Your task to perform on an android device: When is my next meeting? Image 0: 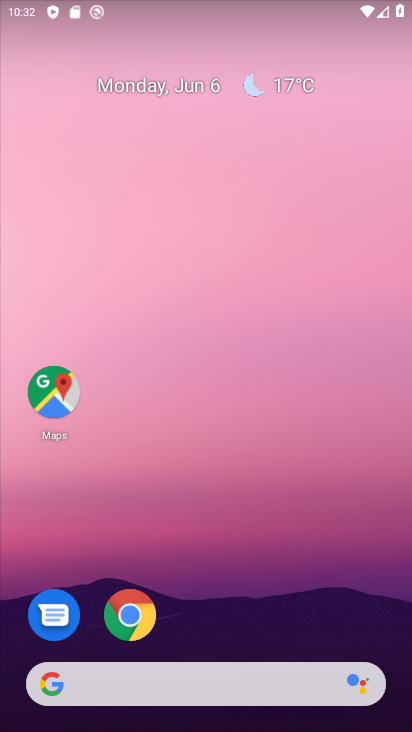
Step 0: drag from (236, 667) to (105, 257)
Your task to perform on an android device: When is my next meeting? Image 1: 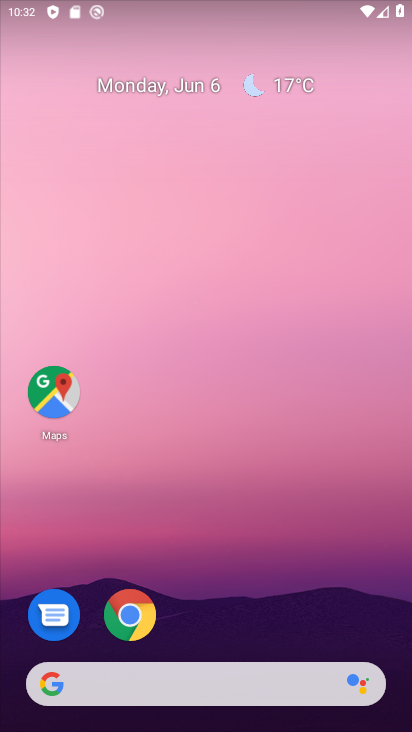
Step 1: drag from (170, 496) to (58, 103)
Your task to perform on an android device: When is my next meeting? Image 2: 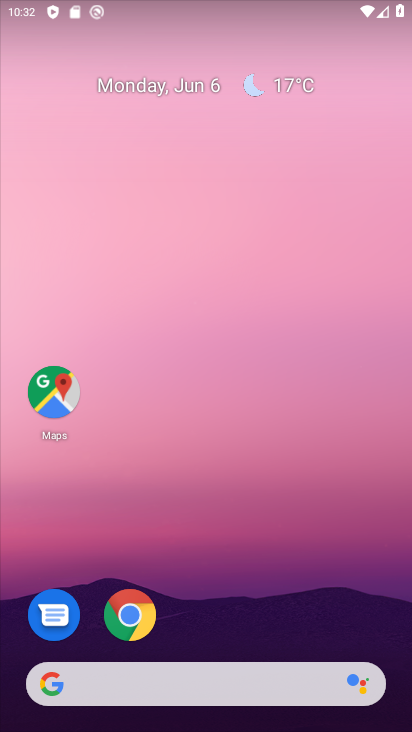
Step 2: drag from (189, 427) to (141, 21)
Your task to perform on an android device: When is my next meeting? Image 3: 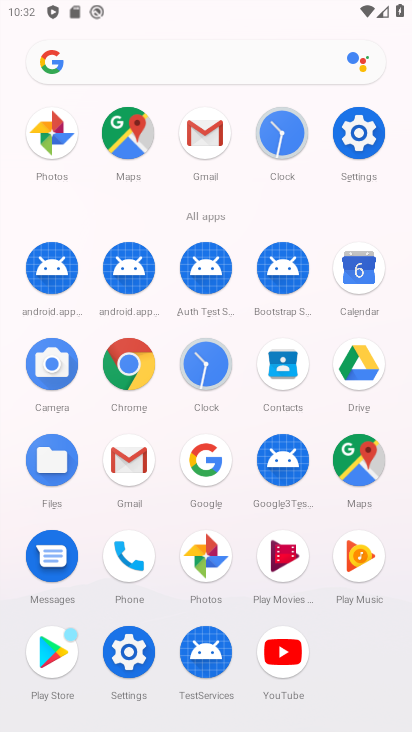
Step 3: drag from (228, 590) to (204, 56)
Your task to perform on an android device: When is my next meeting? Image 4: 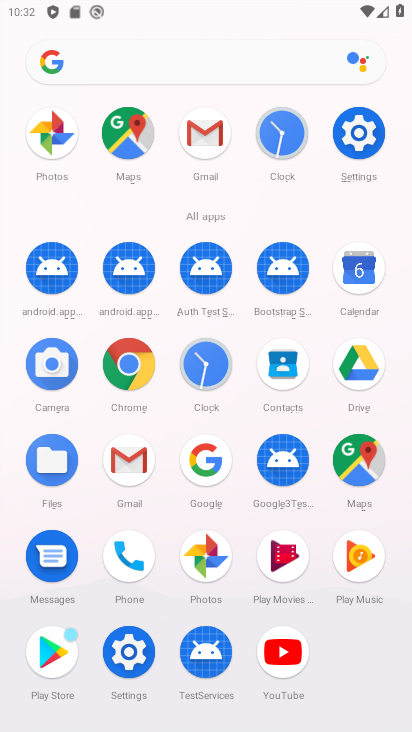
Step 4: click (352, 276)
Your task to perform on an android device: When is my next meeting? Image 5: 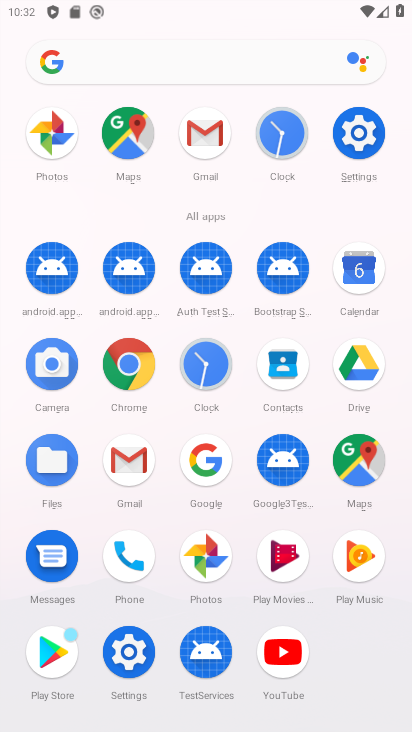
Step 5: click (352, 276)
Your task to perform on an android device: When is my next meeting? Image 6: 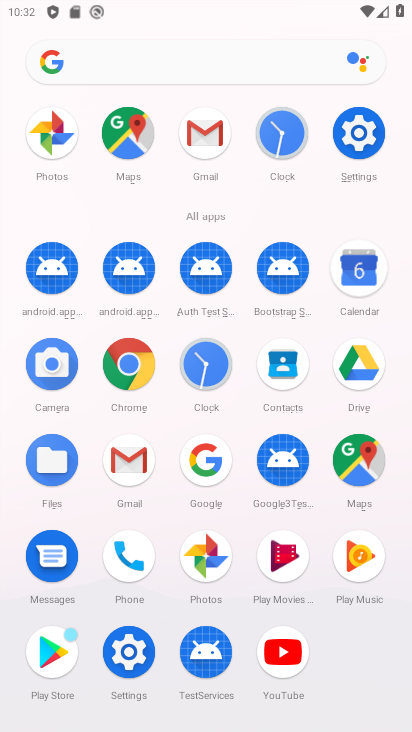
Step 6: click (355, 280)
Your task to perform on an android device: When is my next meeting? Image 7: 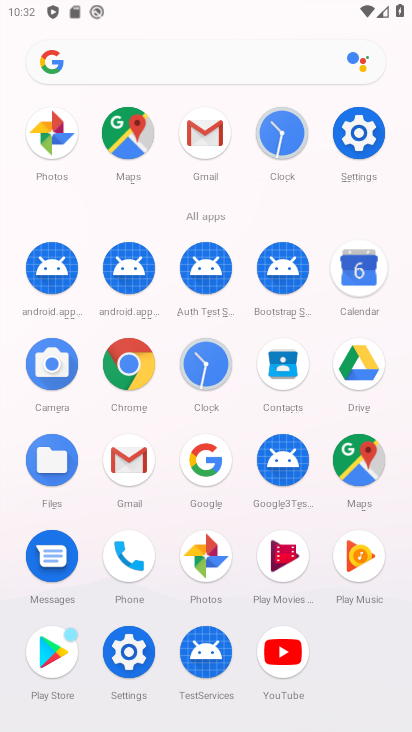
Step 7: click (355, 280)
Your task to perform on an android device: When is my next meeting? Image 8: 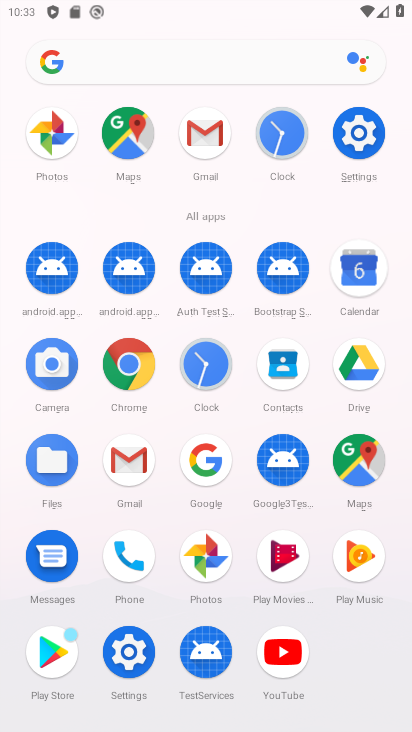
Step 8: click (358, 282)
Your task to perform on an android device: When is my next meeting? Image 9: 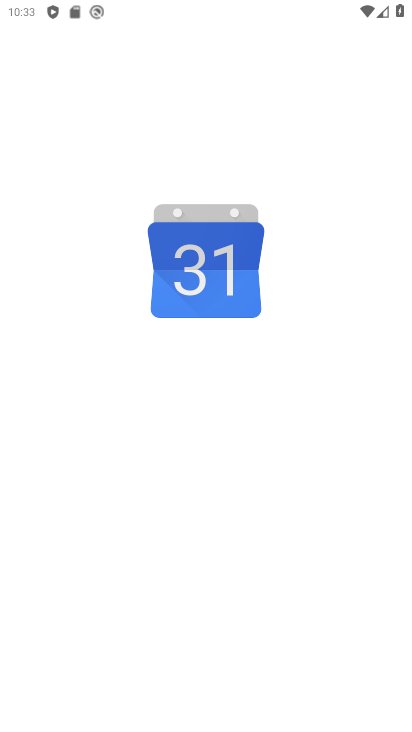
Step 9: click (358, 282)
Your task to perform on an android device: When is my next meeting? Image 10: 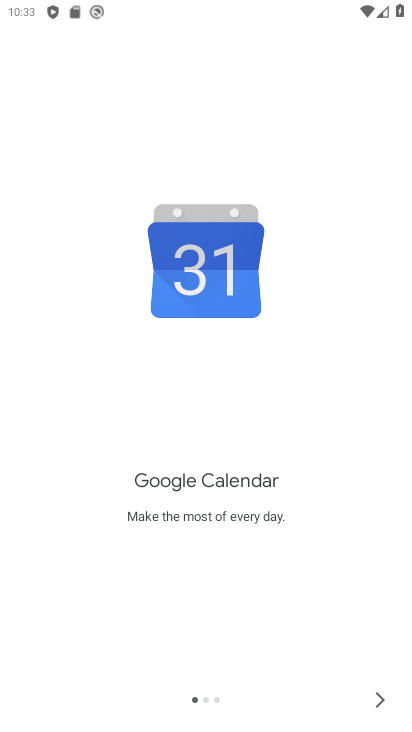
Step 10: click (382, 700)
Your task to perform on an android device: When is my next meeting? Image 11: 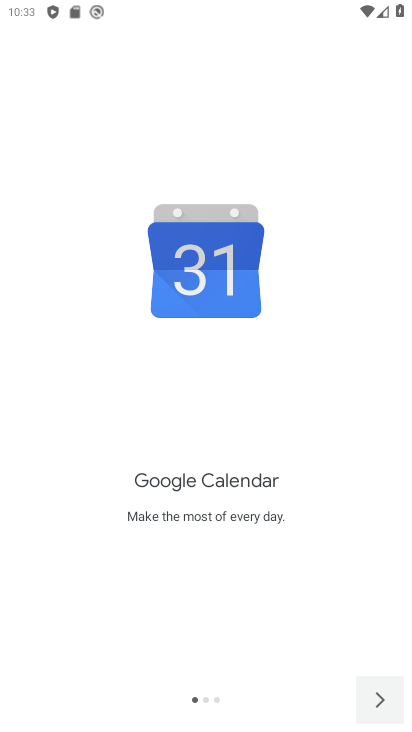
Step 11: click (378, 701)
Your task to perform on an android device: When is my next meeting? Image 12: 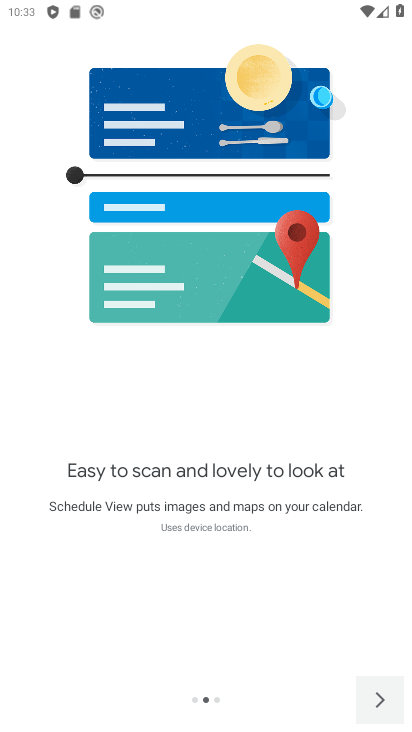
Step 12: click (377, 700)
Your task to perform on an android device: When is my next meeting? Image 13: 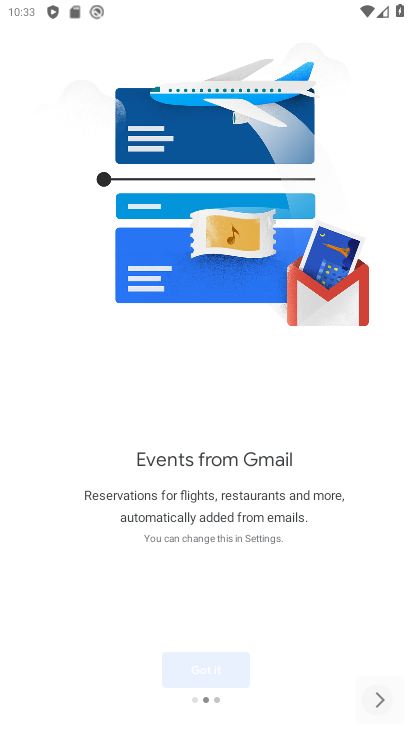
Step 13: click (377, 700)
Your task to perform on an android device: When is my next meeting? Image 14: 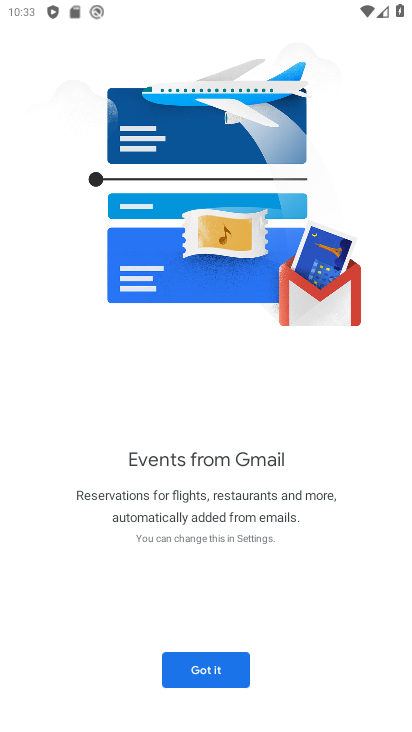
Step 14: click (379, 696)
Your task to perform on an android device: When is my next meeting? Image 15: 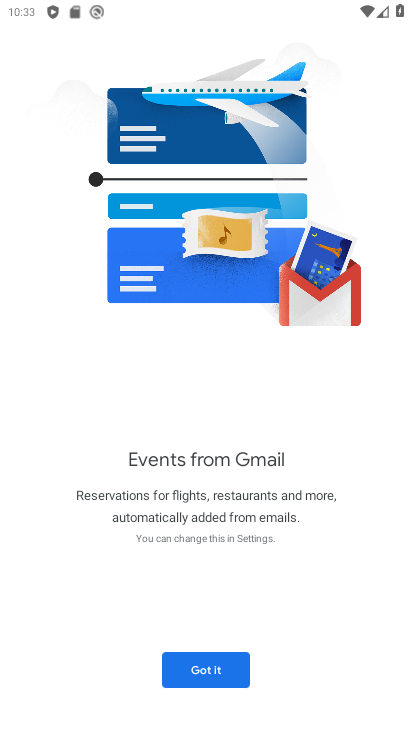
Step 15: click (376, 700)
Your task to perform on an android device: When is my next meeting? Image 16: 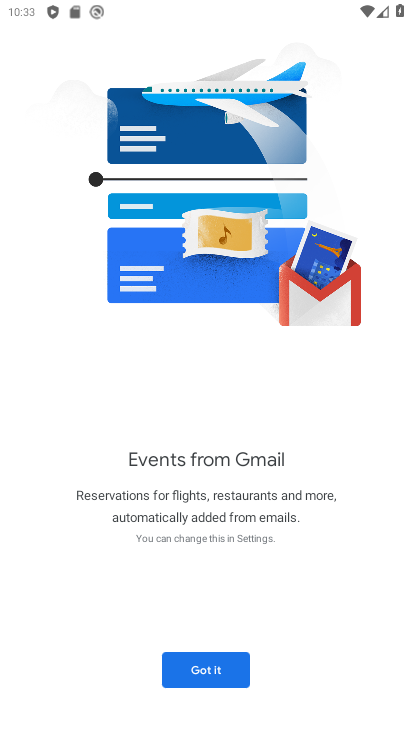
Step 16: click (378, 701)
Your task to perform on an android device: When is my next meeting? Image 17: 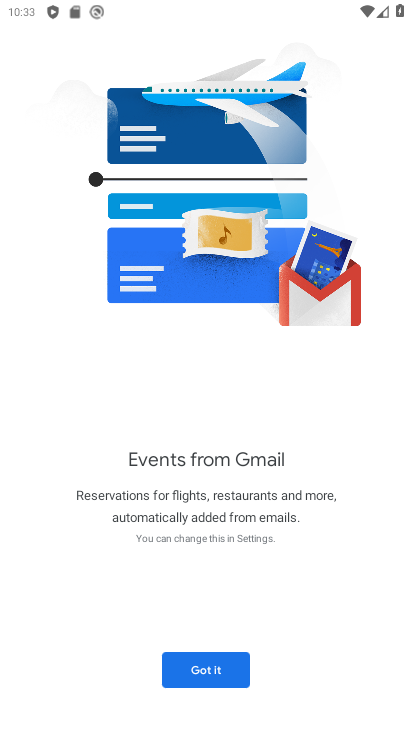
Step 17: click (193, 648)
Your task to perform on an android device: When is my next meeting? Image 18: 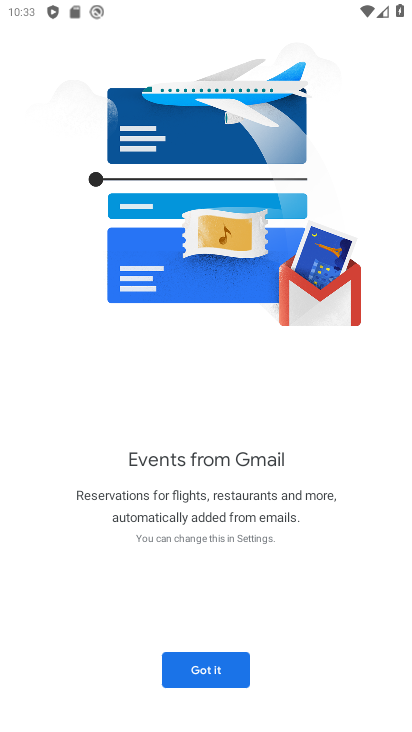
Step 18: click (203, 668)
Your task to perform on an android device: When is my next meeting? Image 19: 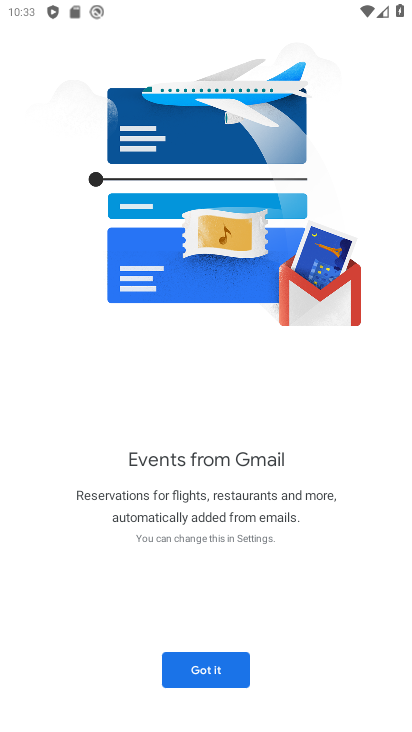
Step 19: click (203, 670)
Your task to perform on an android device: When is my next meeting? Image 20: 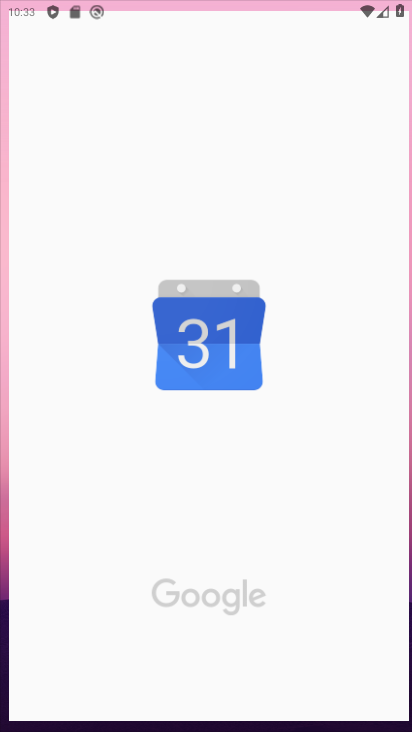
Step 20: click (208, 670)
Your task to perform on an android device: When is my next meeting? Image 21: 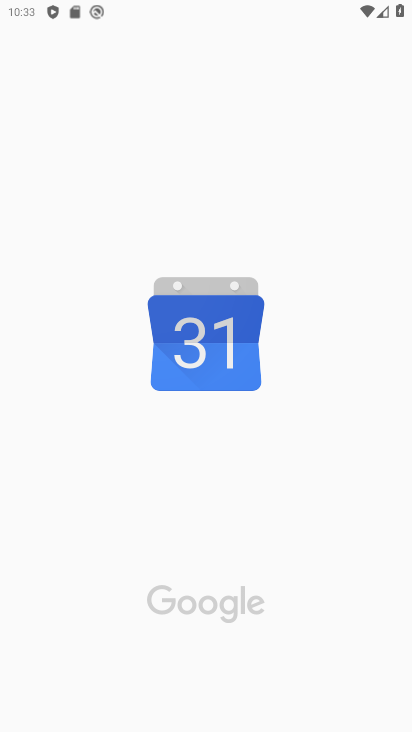
Step 21: click (210, 672)
Your task to perform on an android device: When is my next meeting? Image 22: 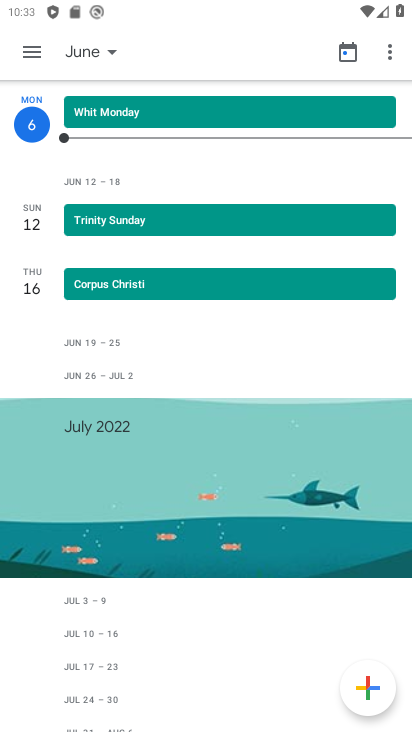
Step 22: task complete